Your task to perform on an android device: star an email in the gmail app Image 0: 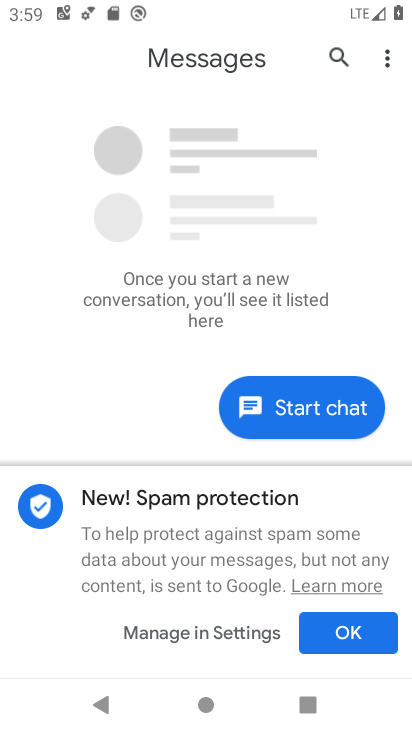
Step 0: press home button
Your task to perform on an android device: star an email in the gmail app Image 1: 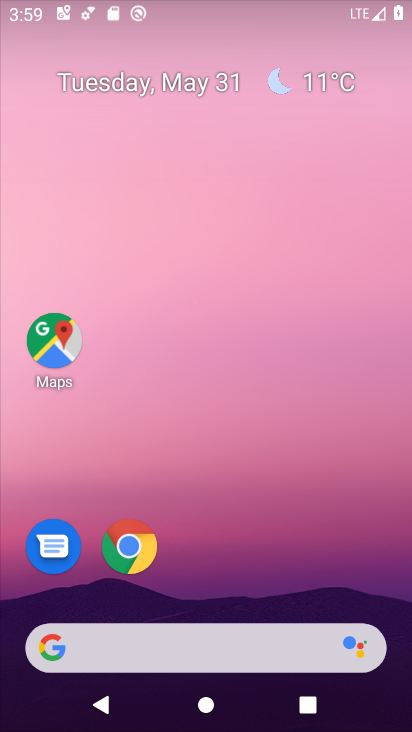
Step 1: drag from (294, 511) to (194, 2)
Your task to perform on an android device: star an email in the gmail app Image 2: 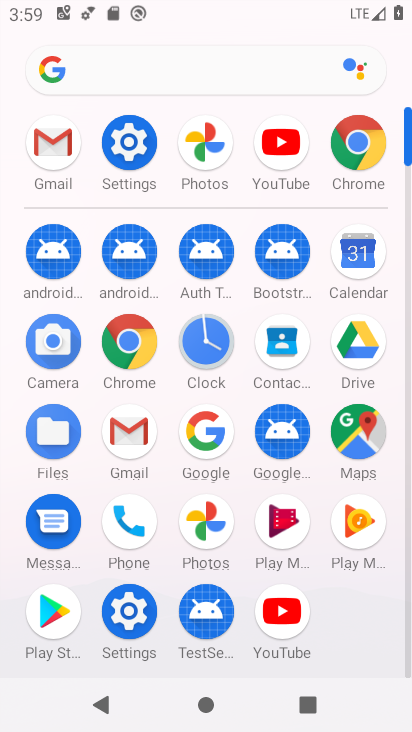
Step 2: click (134, 427)
Your task to perform on an android device: star an email in the gmail app Image 3: 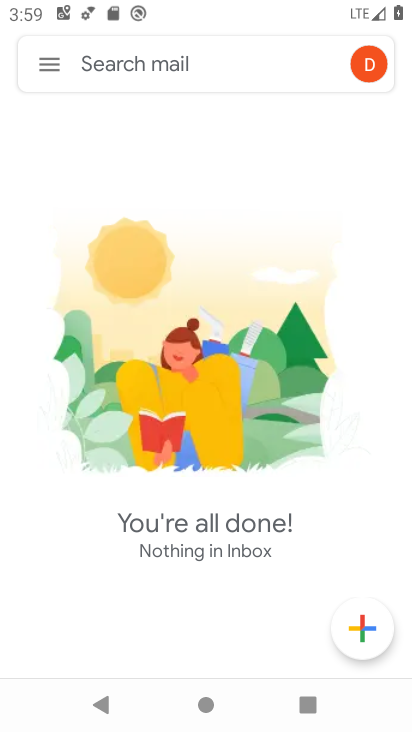
Step 3: click (56, 54)
Your task to perform on an android device: star an email in the gmail app Image 4: 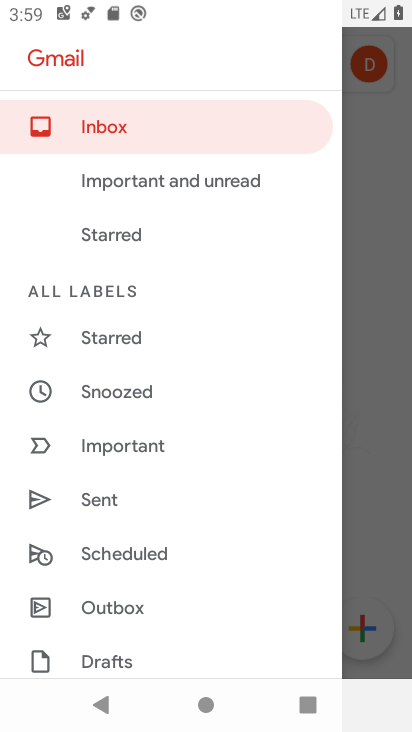
Step 4: click (142, 121)
Your task to perform on an android device: star an email in the gmail app Image 5: 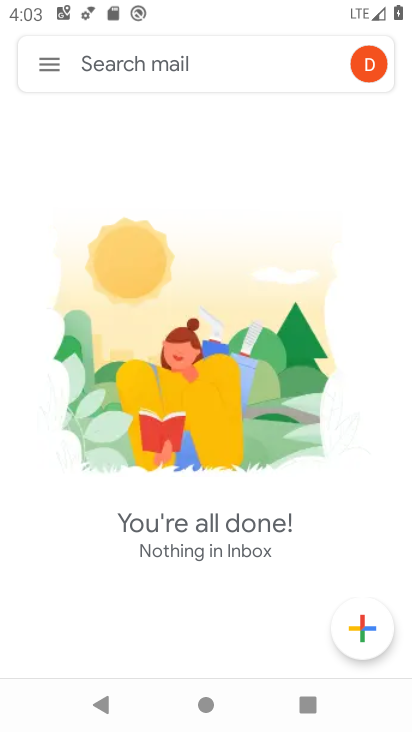
Step 5: task complete